Your task to perform on an android device: Open Amazon Image 0: 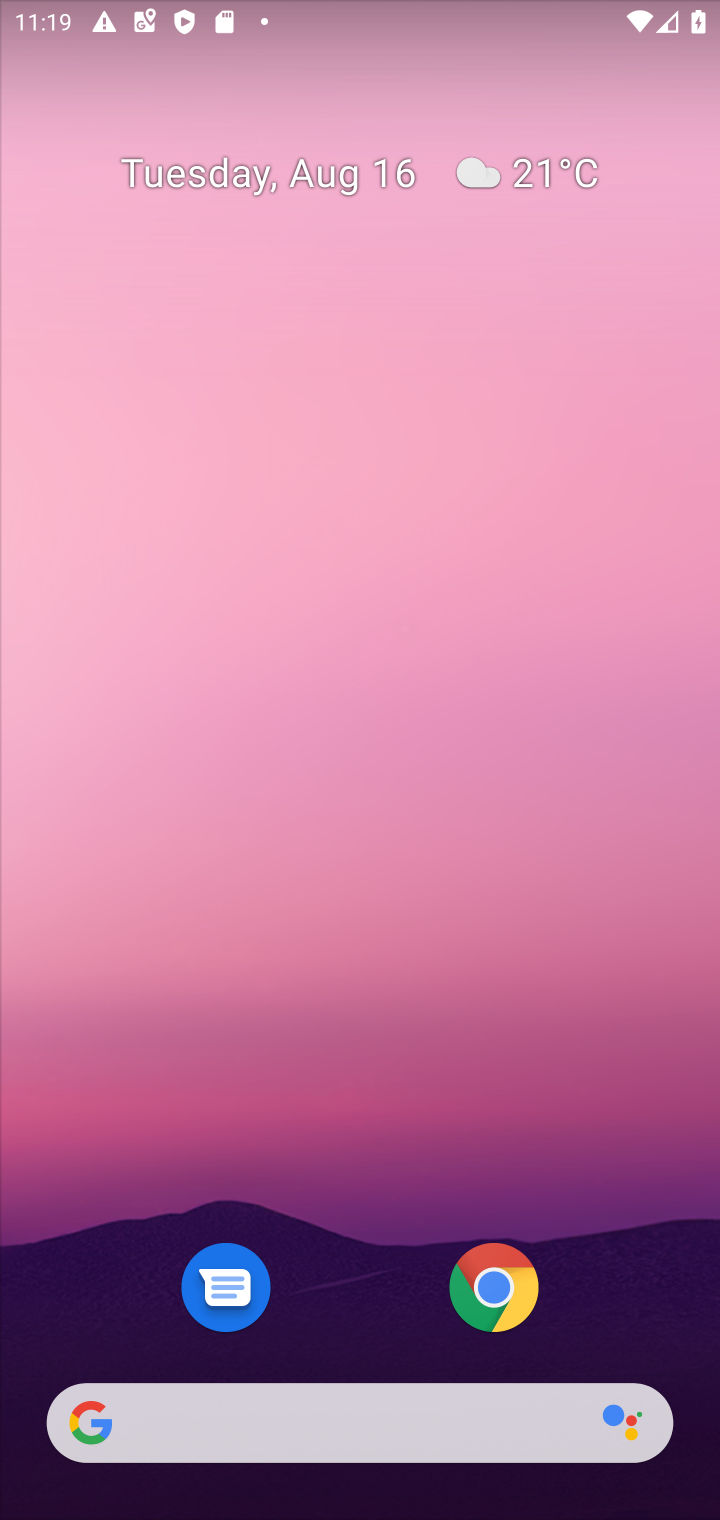
Step 0: click (498, 1296)
Your task to perform on an android device: Open Amazon Image 1: 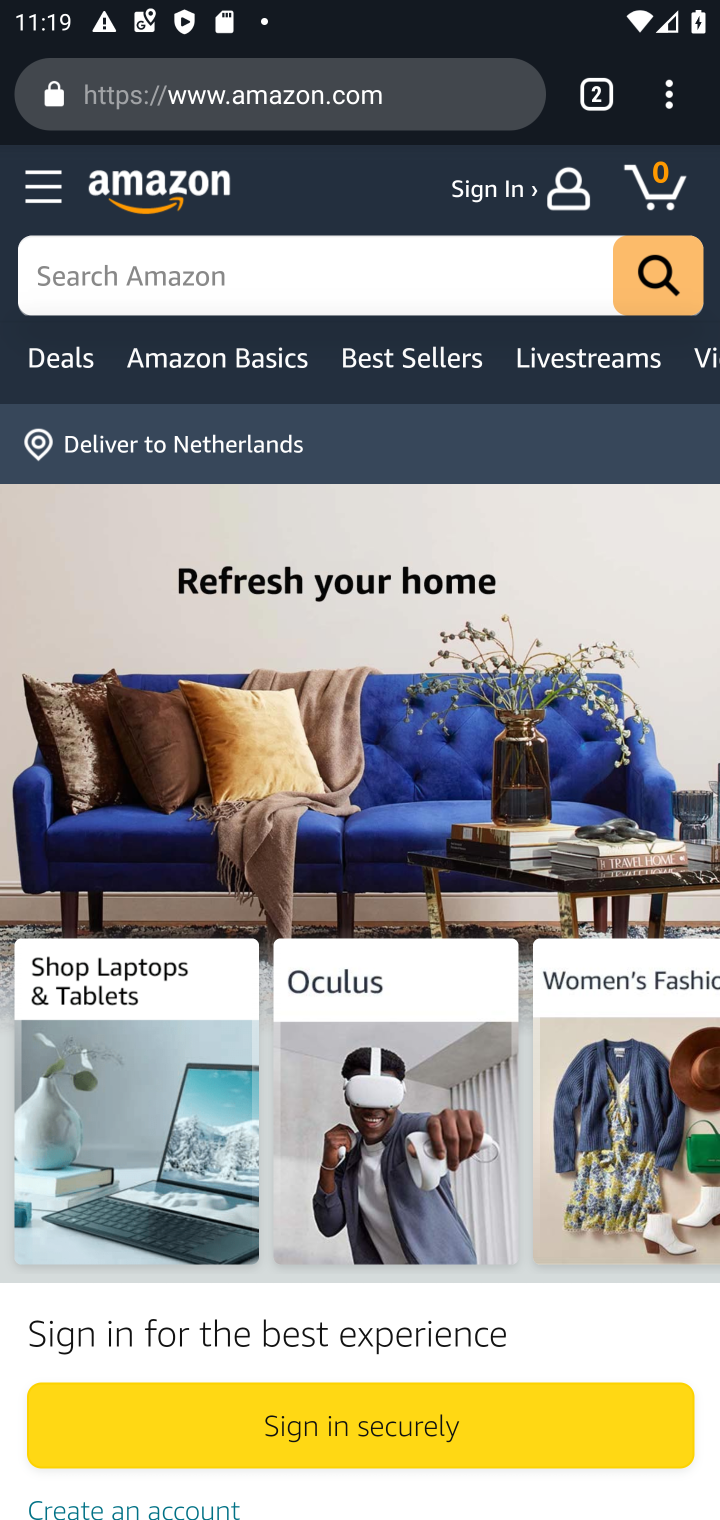
Step 1: task complete